Your task to perform on an android device: Open settings Image 0: 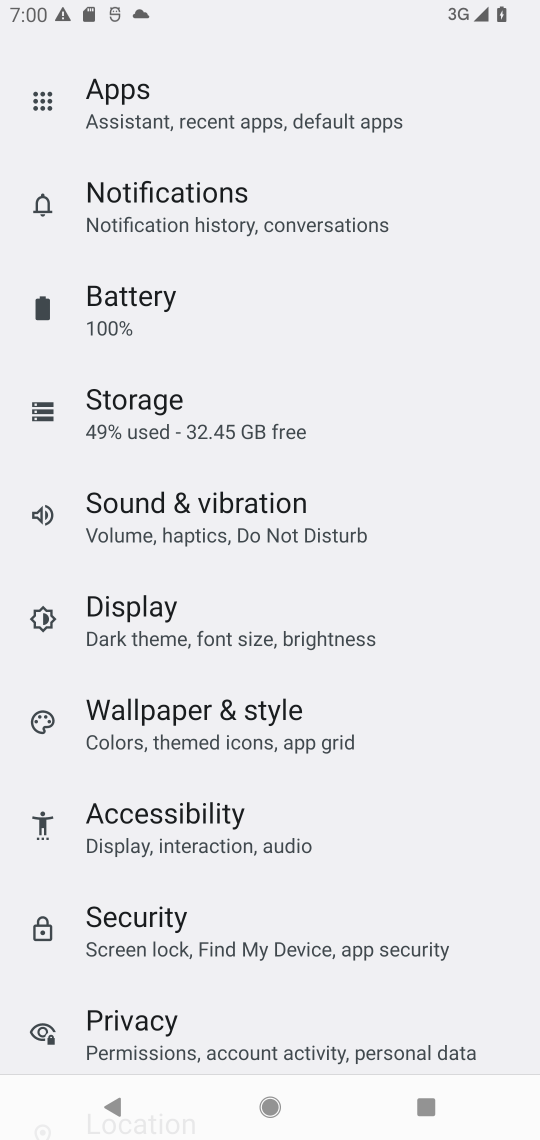
Step 0: drag from (415, 73) to (269, 982)
Your task to perform on an android device: Open settings Image 1: 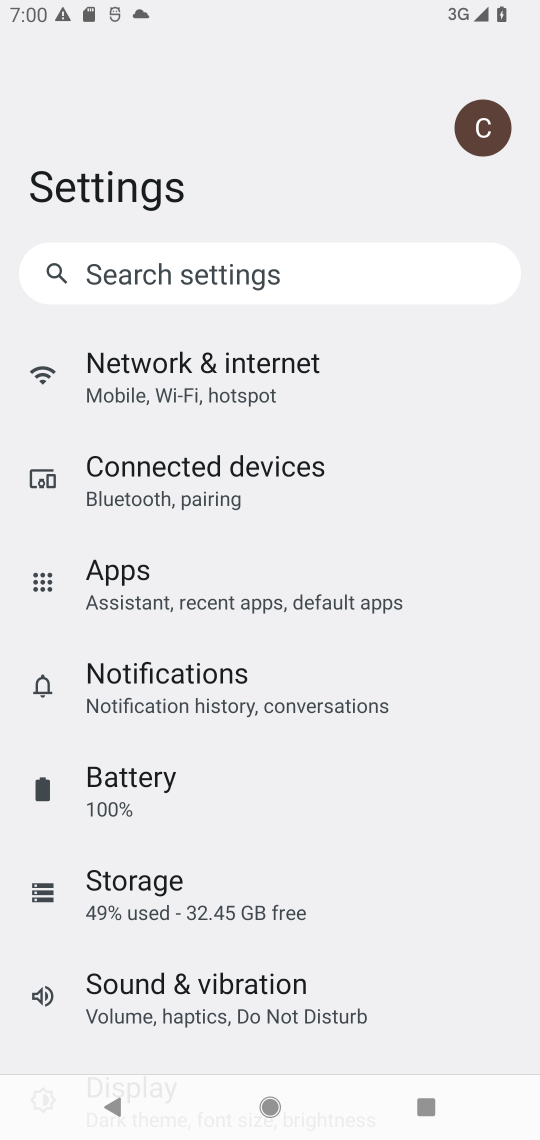
Step 1: task complete